Your task to perform on an android device: Check the weather Image 0: 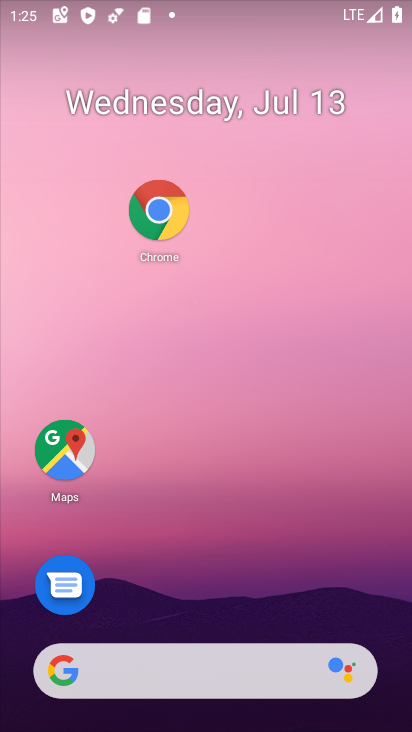
Step 0: click (261, 662)
Your task to perform on an android device: Check the weather Image 1: 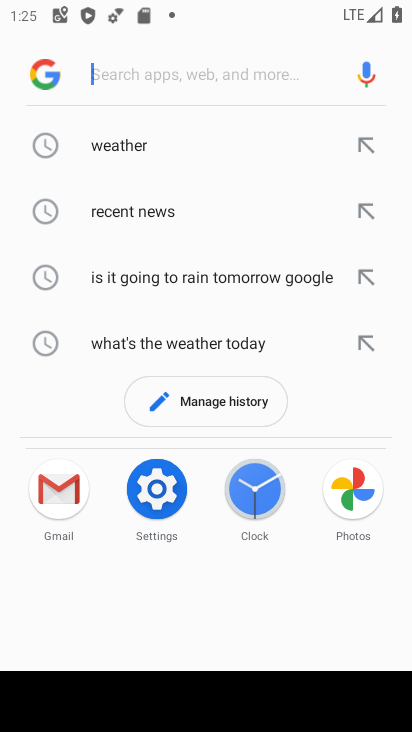
Step 1: click (136, 144)
Your task to perform on an android device: Check the weather Image 2: 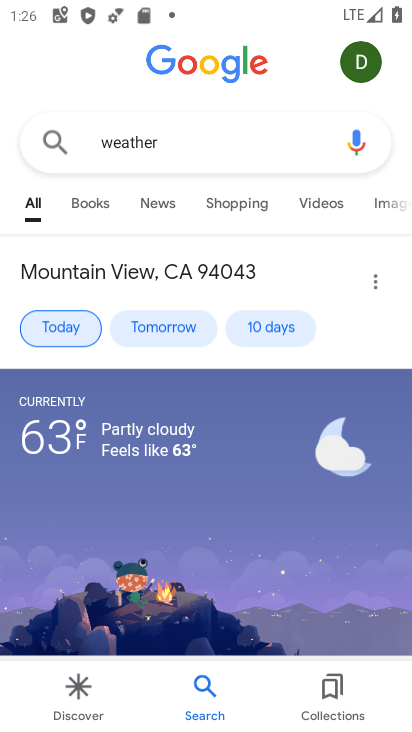
Step 2: task complete